Your task to perform on an android device: Open Google Image 0: 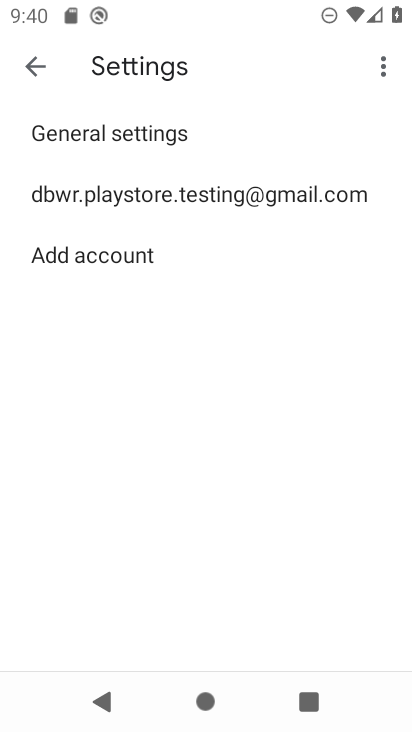
Step 0: press home button
Your task to perform on an android device: Open Google Image 1: 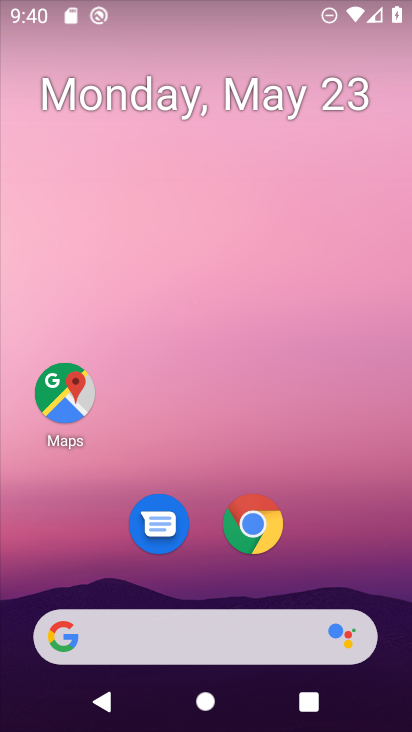
Step 1: click (69, 644)
Your task to perform on an android device: Open Google Image 2: 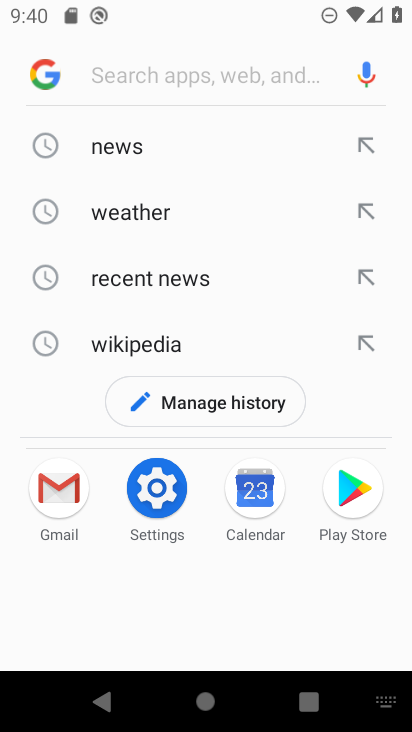
Step 2: click (47, 80)
Your task to perform on an android device: Open Google Image 3: 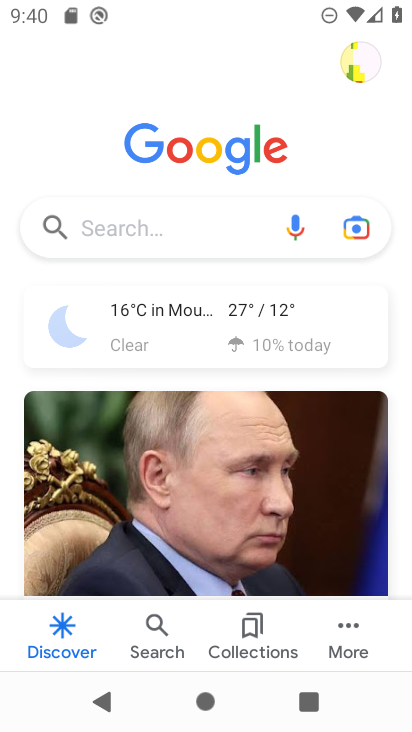
Step 3: task complete